Your task to perform on an android device: Open calendar and show me the second week of next month Image 0: 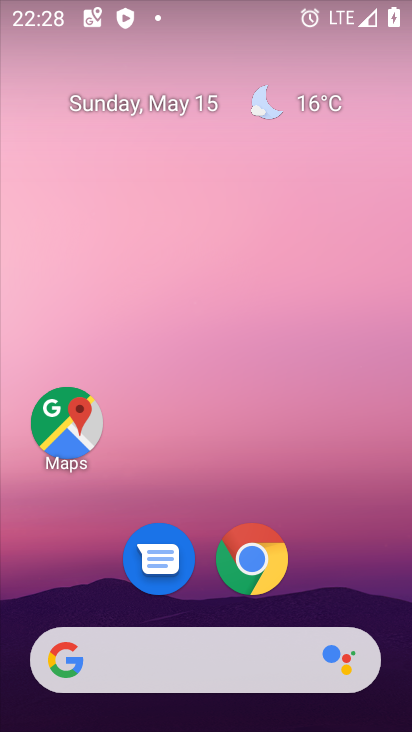
Step 0: drag from (205, 467) to (183, 2)
Your task to perform on an android device: Open calendar and show me the second week of next month Image 1: 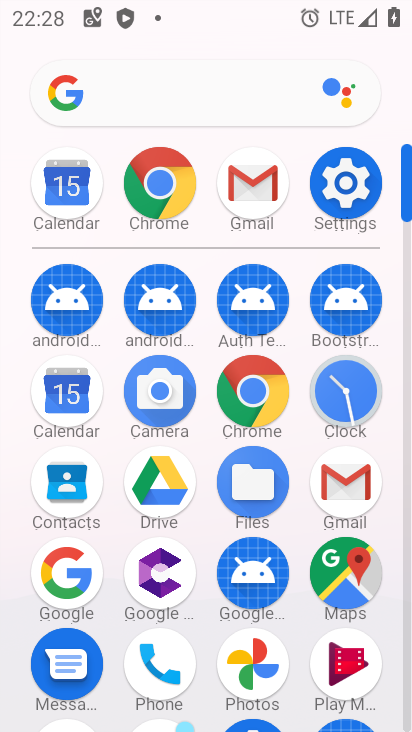
Step 1: click (75, 396)
Your task to perform on an android device: Open calendar and show me the second week of next month Image 2: 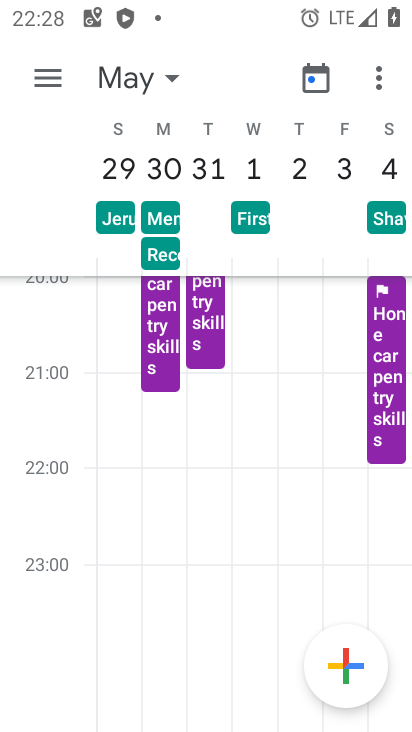
Step 2: click (172, 80)
Your task to perform on an android device: Open calendar and show me the second week of next month Image 3: 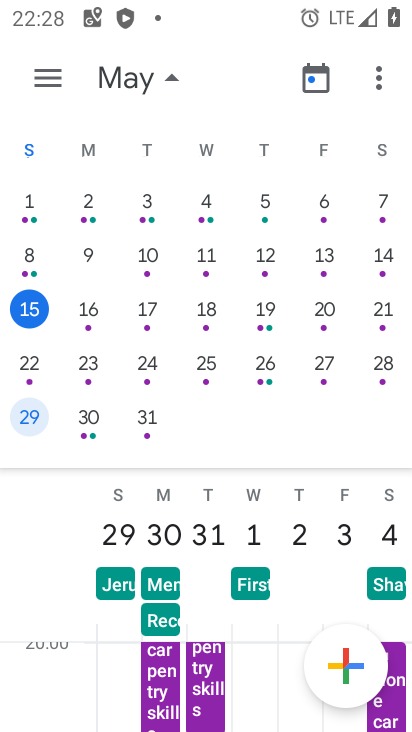
Step 3: drag from (365, 260) to (71, 221)
Your task to perform on an android device: Open calendar and show me the second week of next month Image 4: 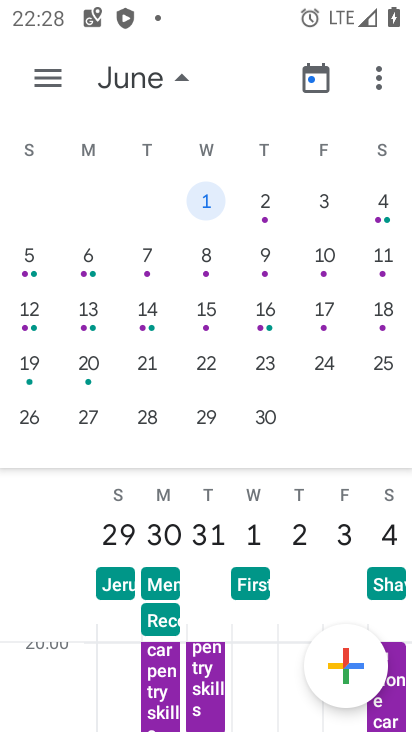
Step 4: click (203, 260)
Your task to perform on an android device: Open calendar and show me the second week of next month Image 5: 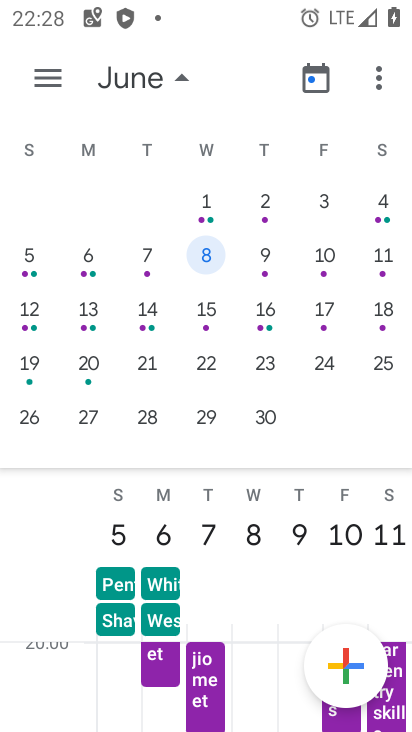
Step 5: task complete